Your task to perform on an android device: View the shopping cart on walmart.com. Image 0: 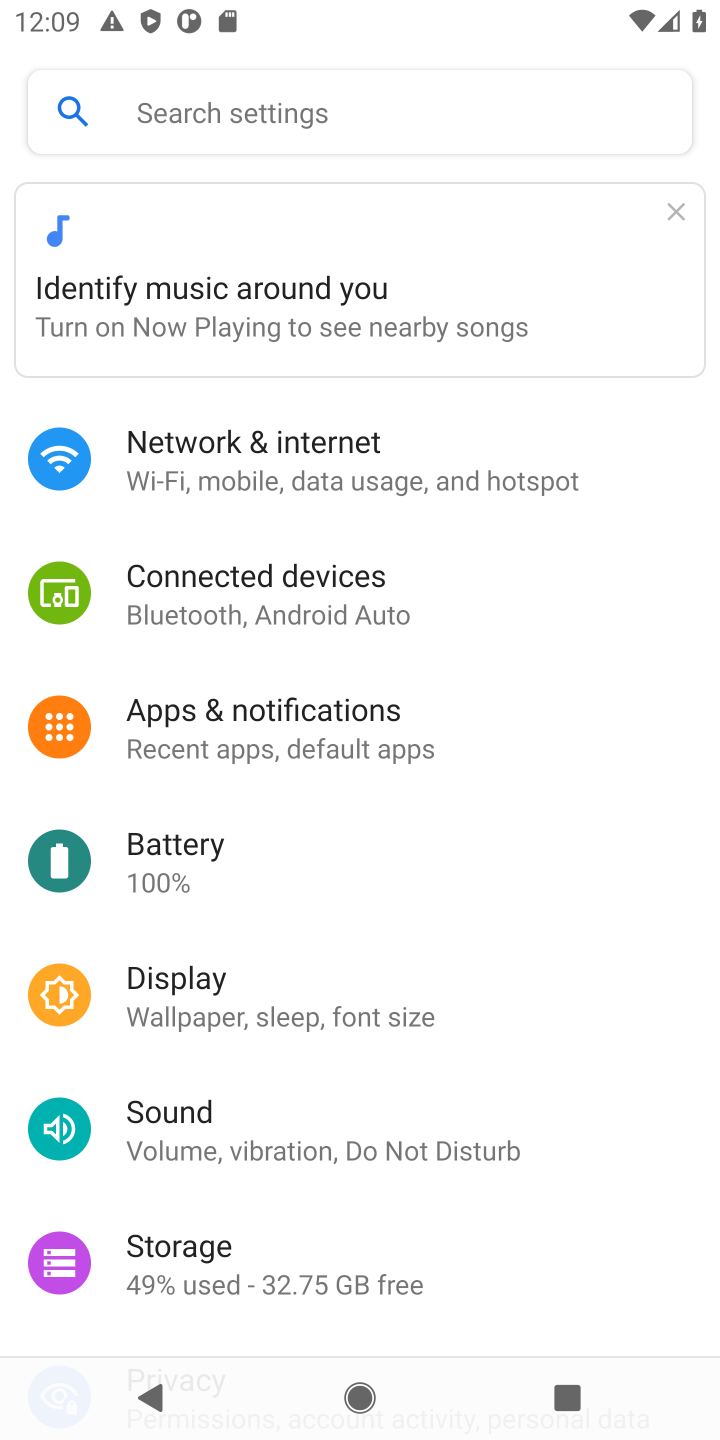
Step 0: press home button
Your task to perform on an android device: View the shopping cart on walmart.com. Image 1: 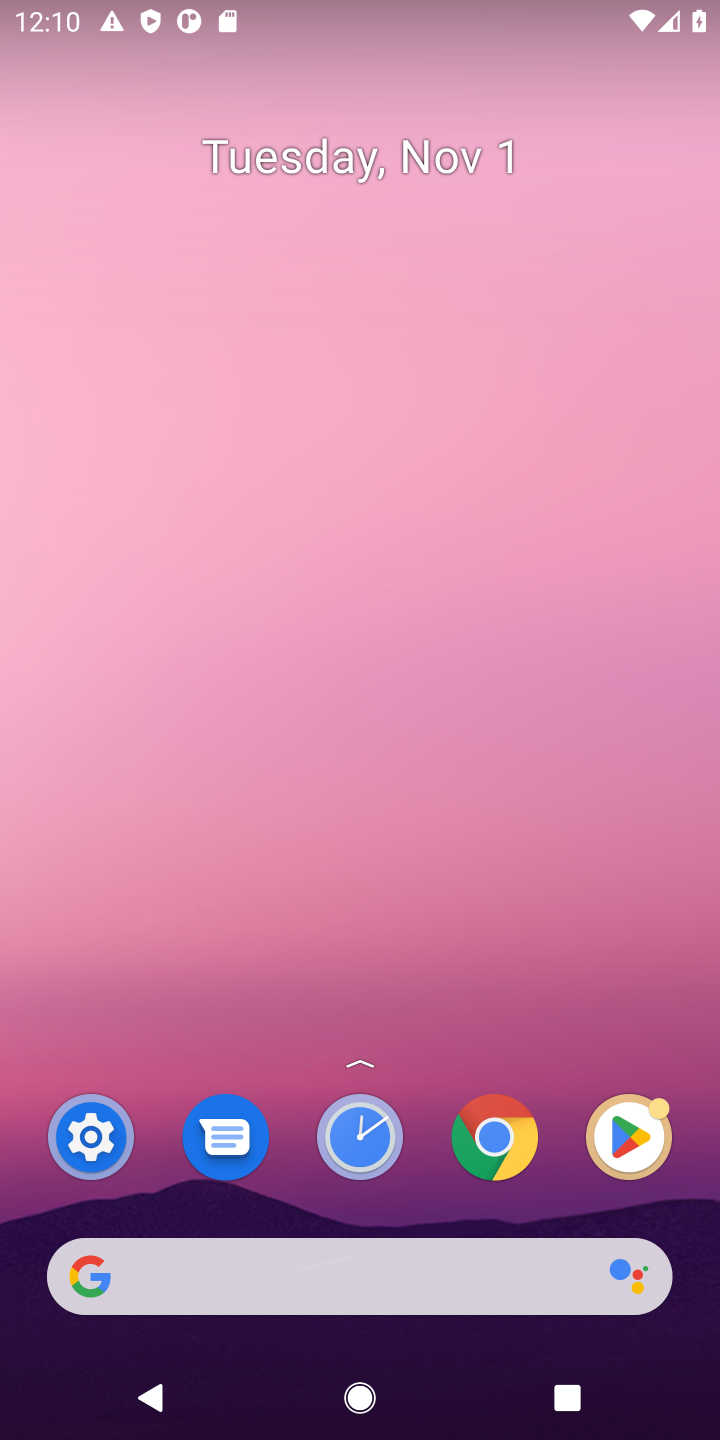
Step 1: click (473, 1137)
Your task to perform on an android device: View the shopping cart on walmart.com. Image 2: 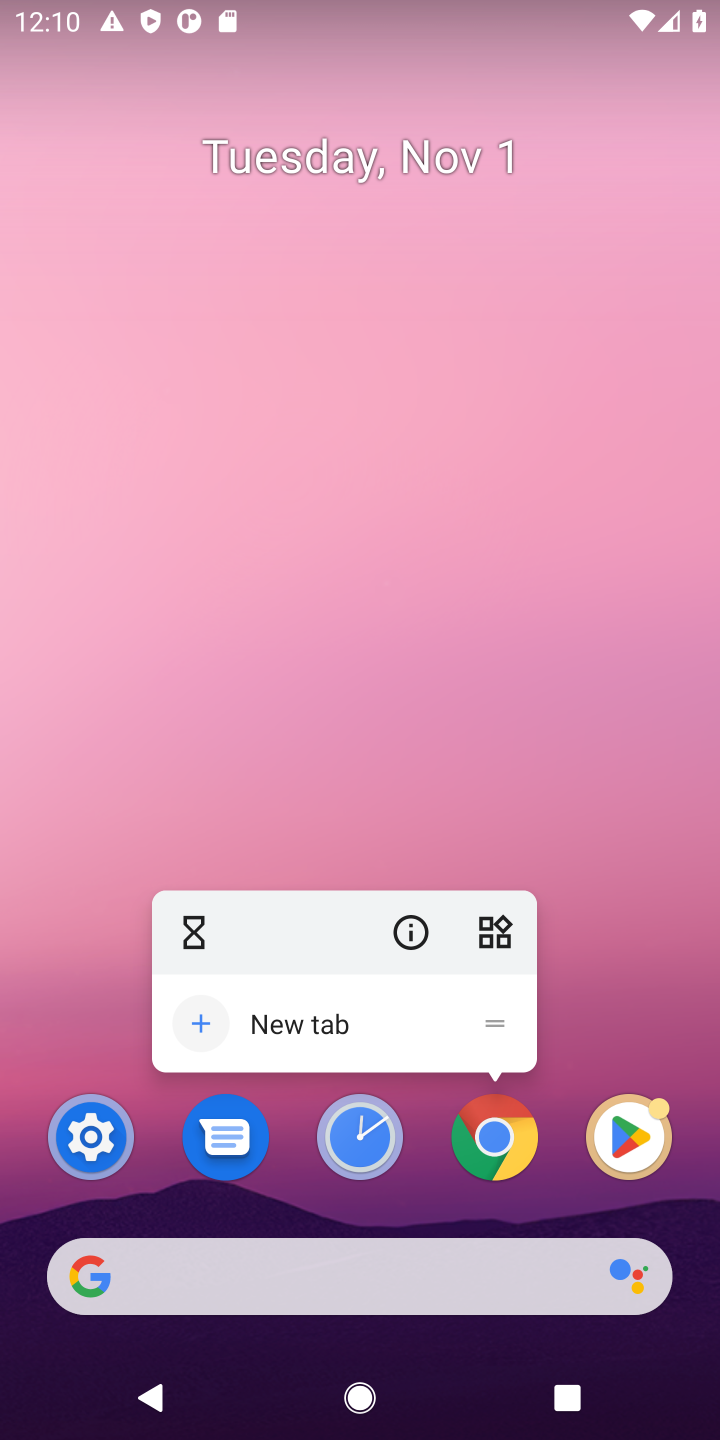
Step 2: click (499, 1133)
Your task to perform on an android device: View the shopping cart on walmart.com. Image 3: 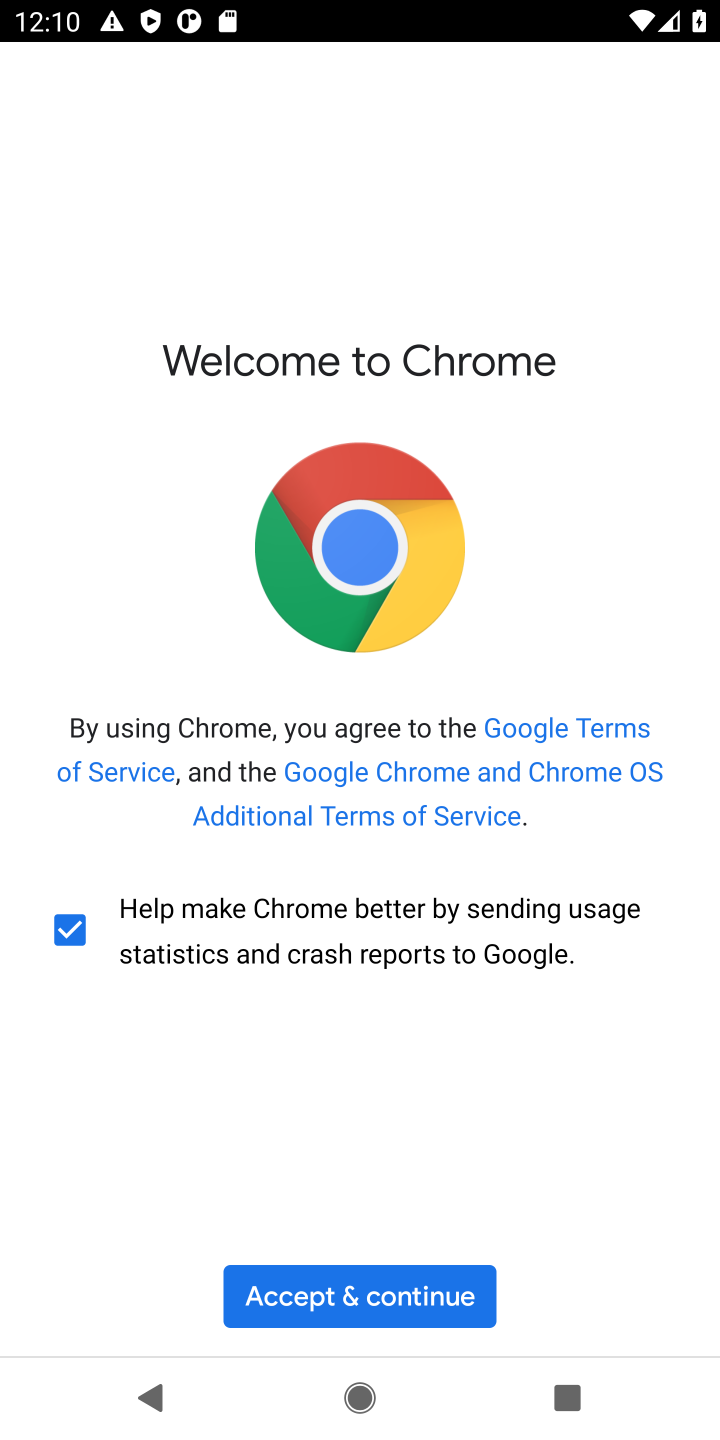
Step 3: click (362, 1297)
Your task to perform on an android device: View the shopping cart on walmart.com. Image 4: 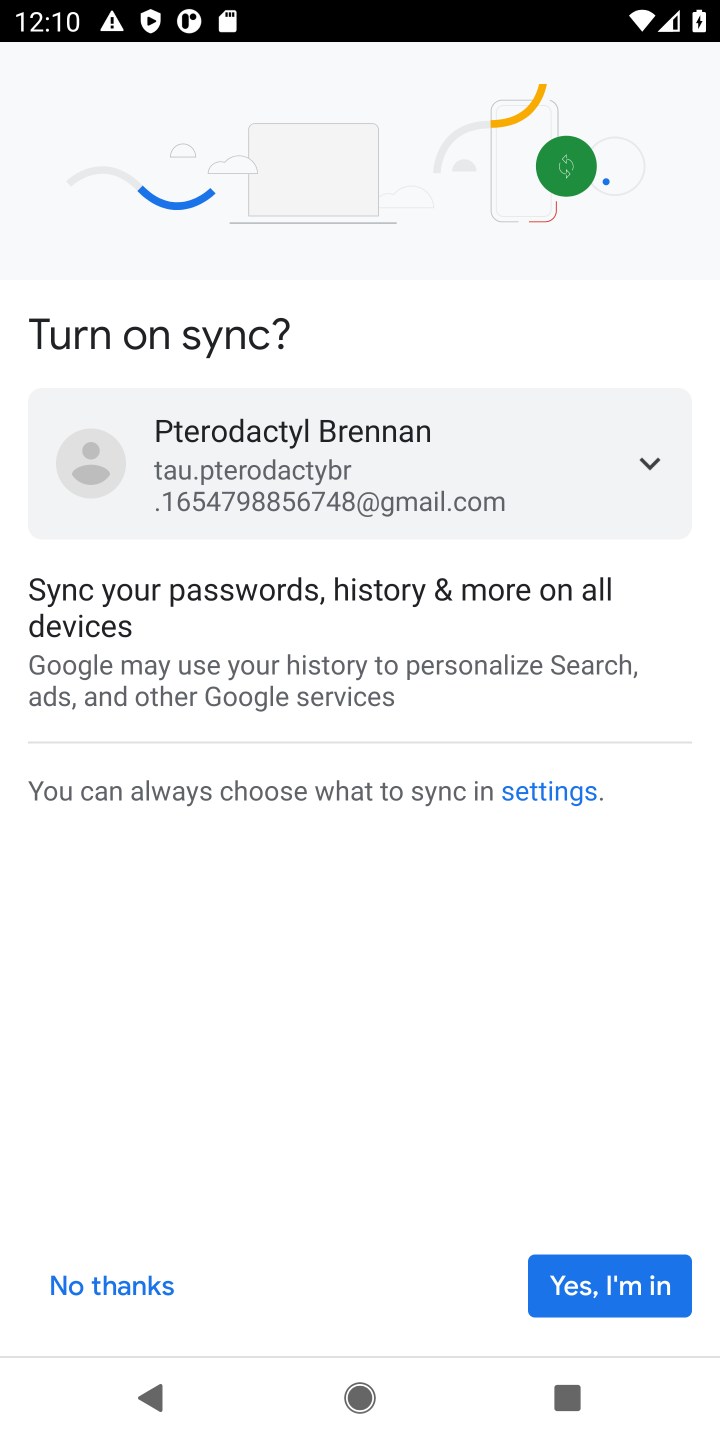
Step 4: click (589, 1274)
Your task to perform on an android device: View the shopping cart on walmart.com. Image 5: 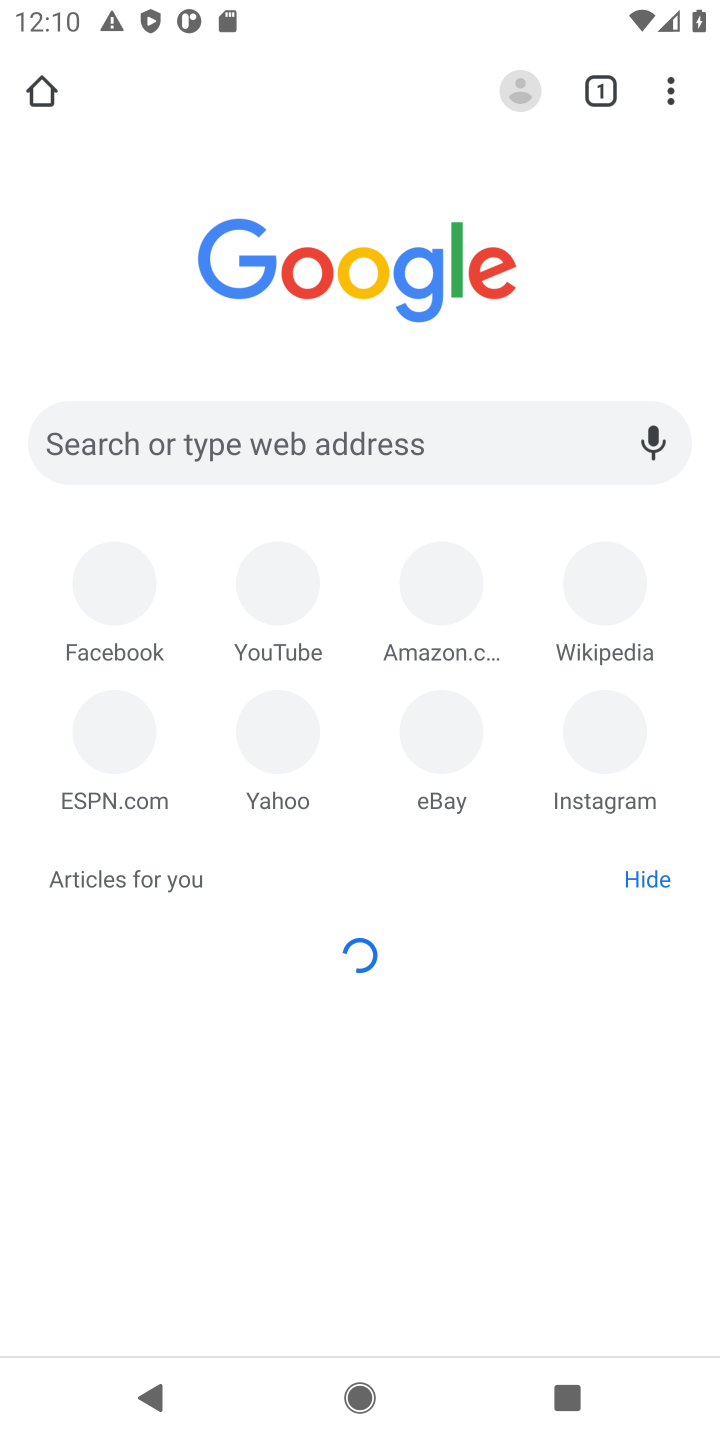
Step 5: click (316, 447)
Your task to perform on an android device: View the shopping cart on walmart.com. Image 6: 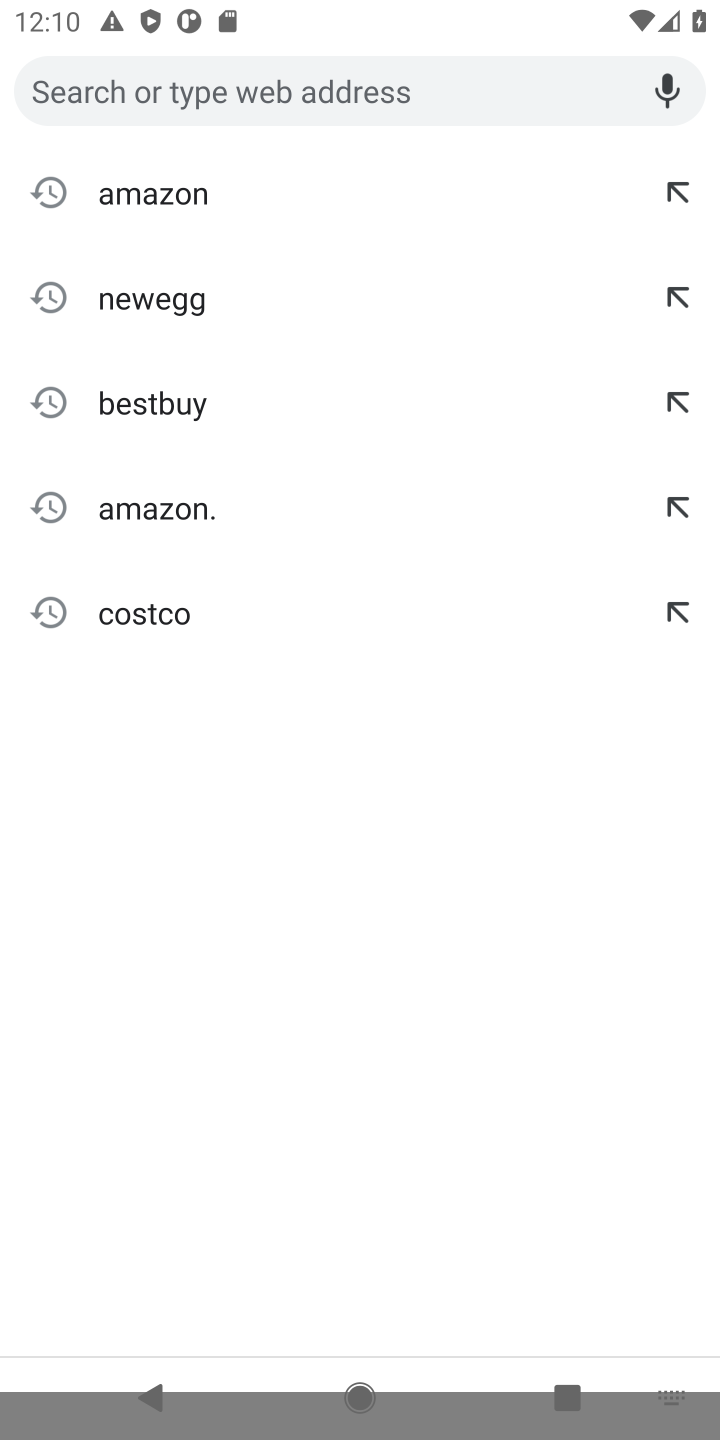
Step 6: type "walmart"
Your task to perform on an android device: View the shopping cart on walmart.com. Image 7: 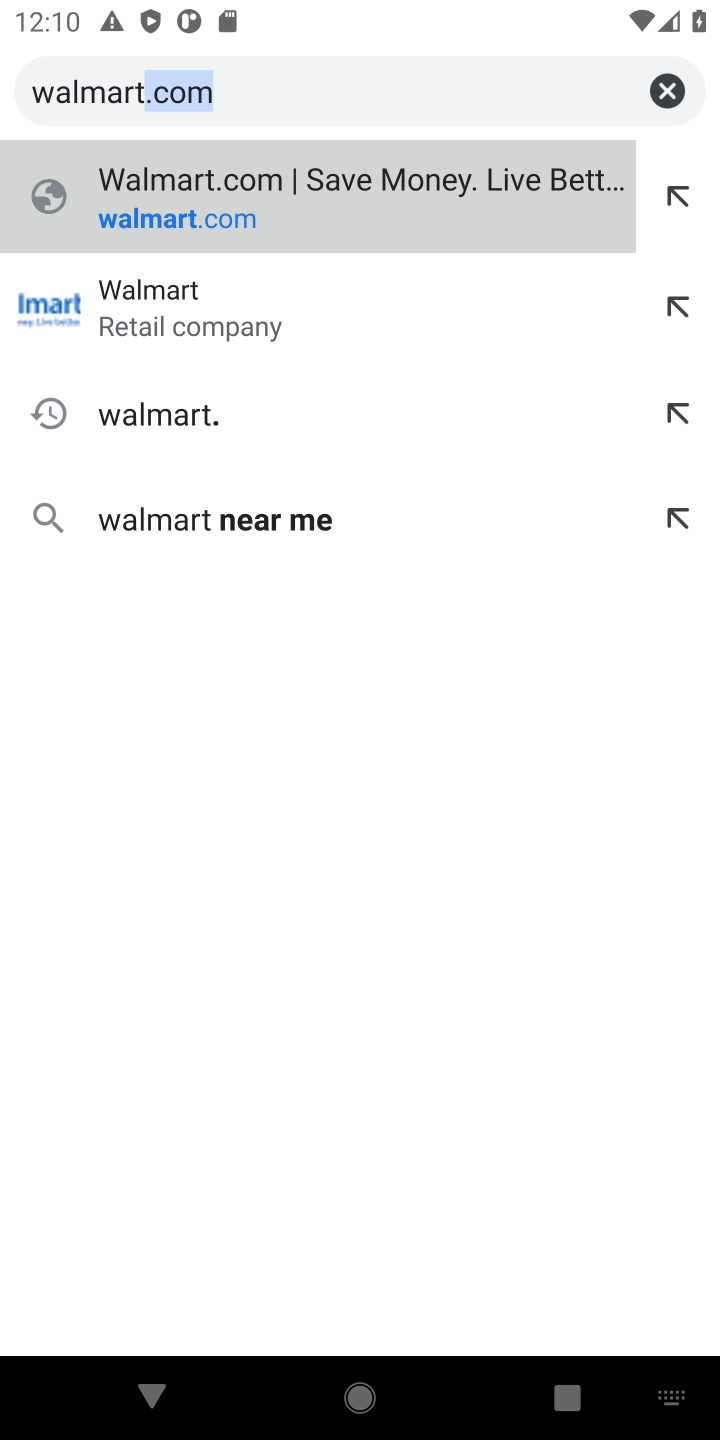
Step 7: click (342, 221)
Your task to perform on an android device: View the shopping cart on walmart.com. Image 8: 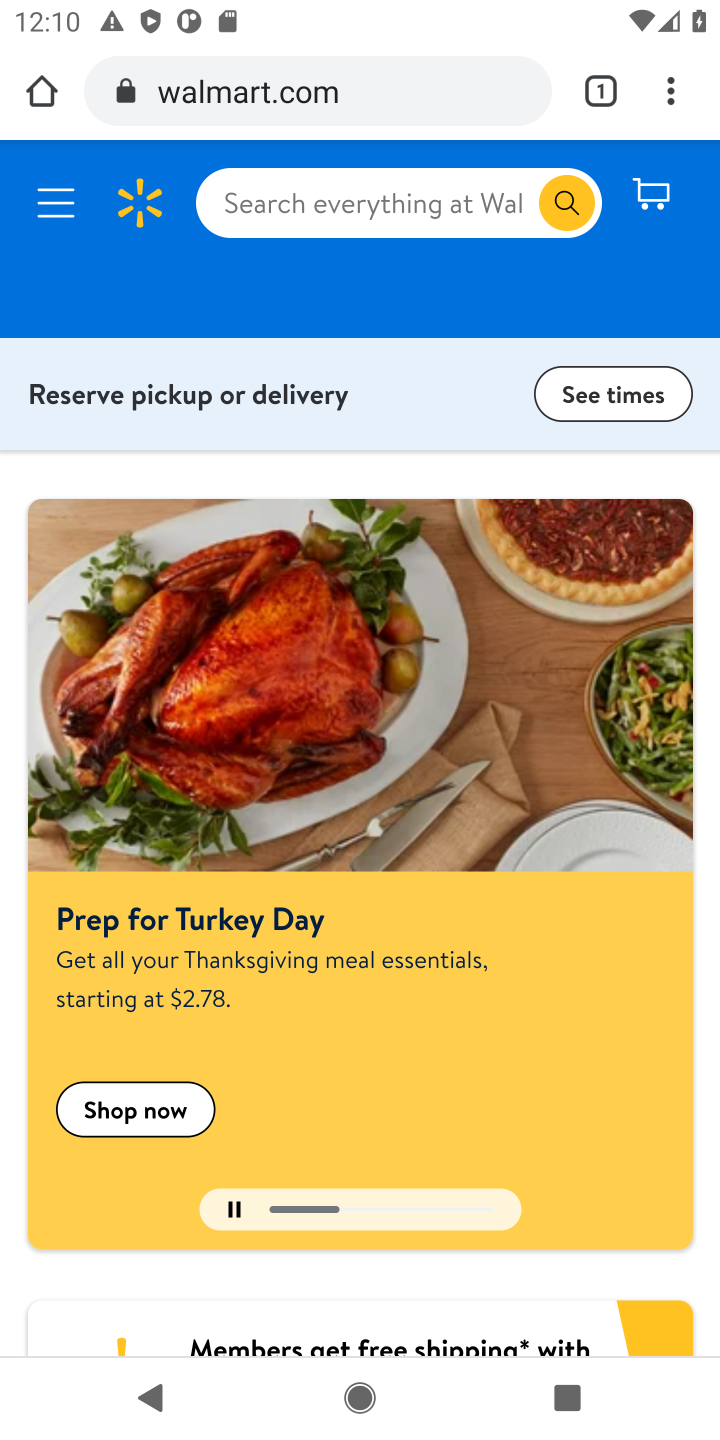
Step 8: click (648, 193)
Your task to perform on an android device: View the shopping cart on walmart.com. Image 9: 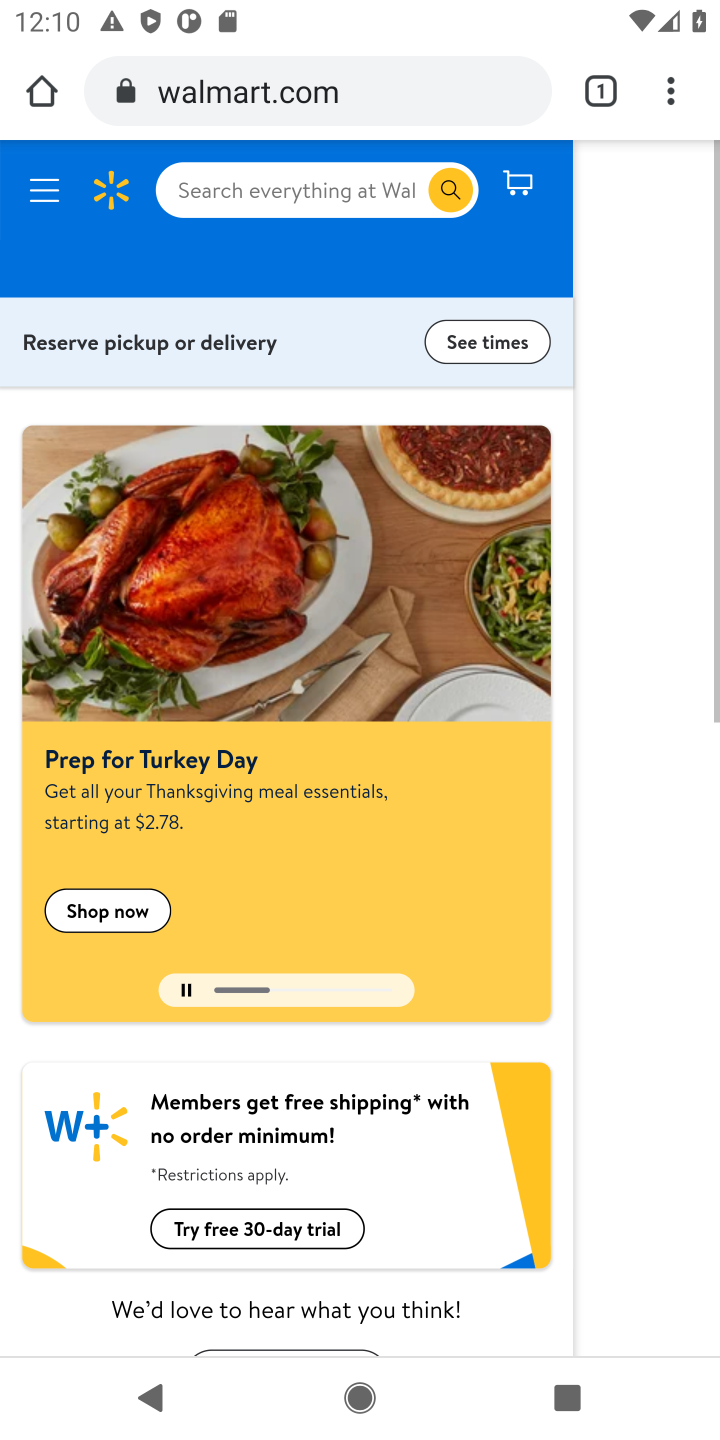
Step 9: task complete